Your task to perform on an android device: Go to Amazon Image 0: 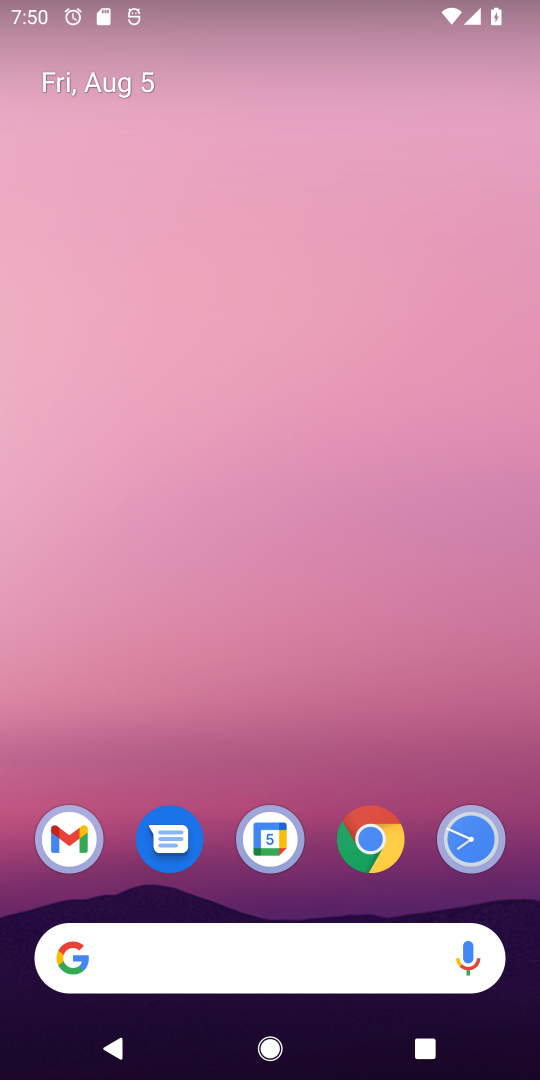
Step 0: drag from (252, 743) to (256, 198)
Your task to perform on an android device: Go to Amazon Image 1: 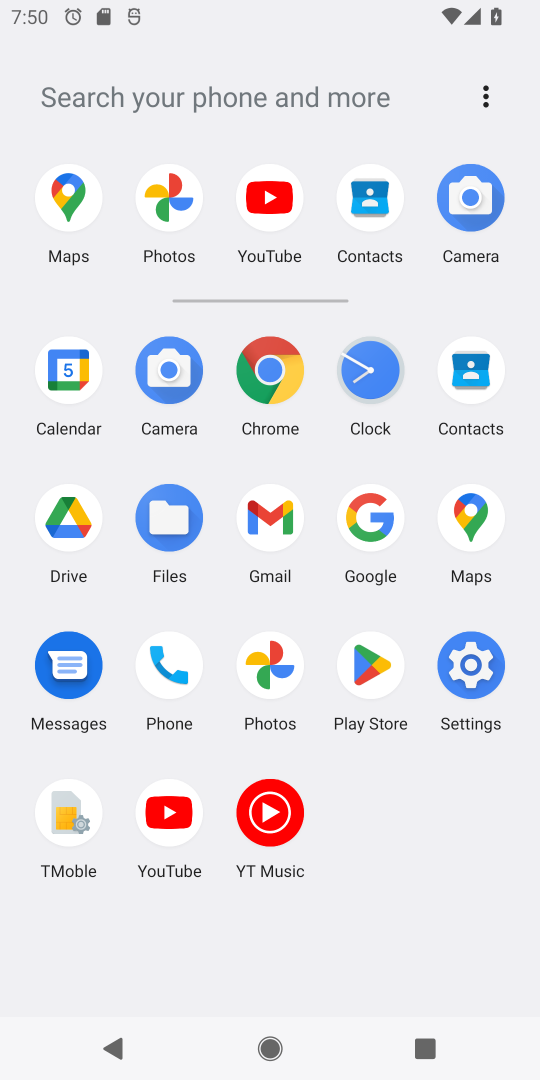
Step 1: click (390, 533)
Your task to perform on an android device: Go to Amazon Image 2: 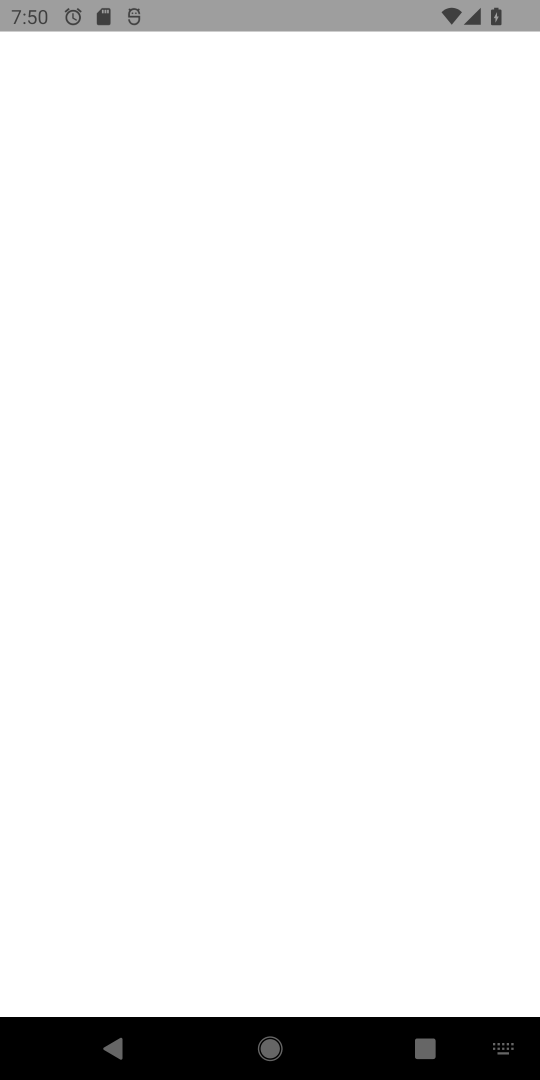
Step 2: task complete